Your task to perform on an android device: check storage Image 0: 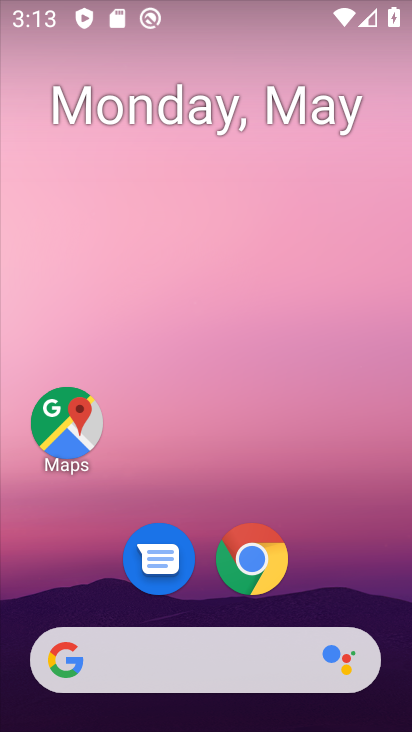
Step 0: click (223, 82)
Your task to perform on an android device: check storage Image 1: 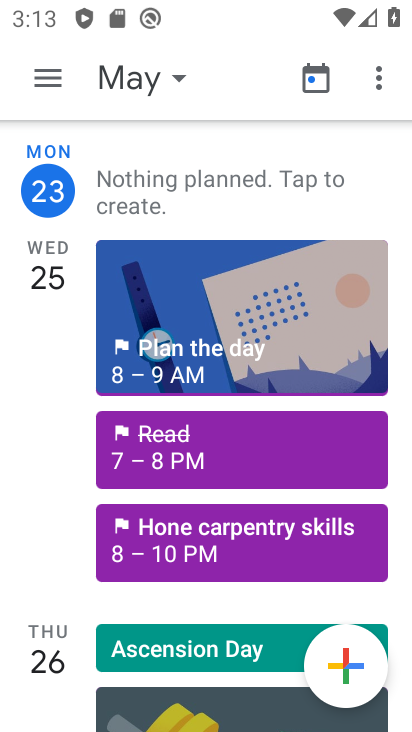
Step 1: press back button
Your task to perform on an android device: check storage Image 2: 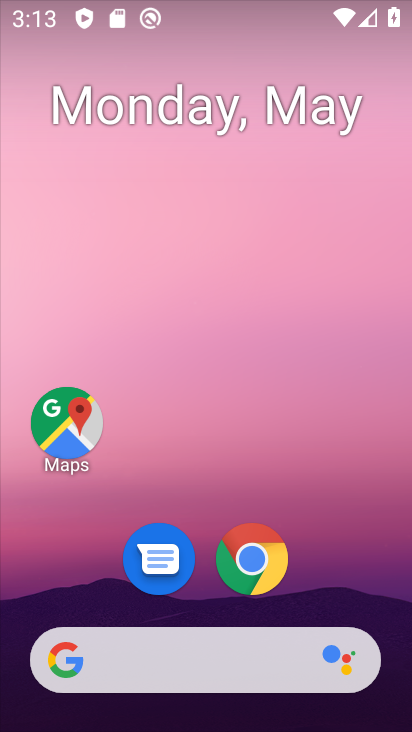
Step 2: drag from (311, 540) to (215, 130)
Your task to perform on an android device: check storage Image 3: 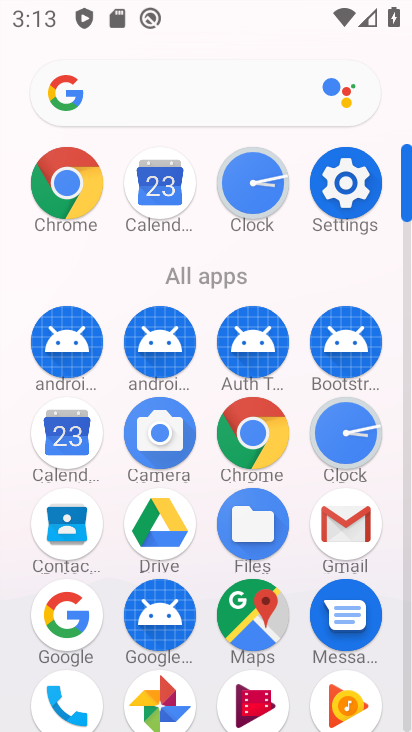
Step 3: click (340, 190)
Your task to perform on an android device: check storage Image 4: 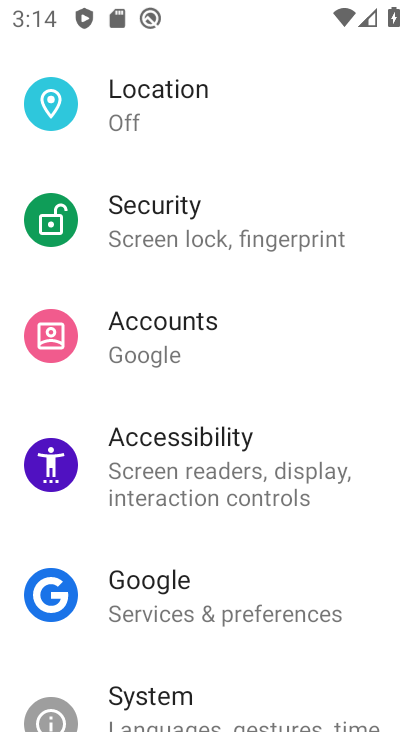
Step 4: drag from (215, 570) to (158, 221)
Your task to perform on an android device: check storage Image 5: 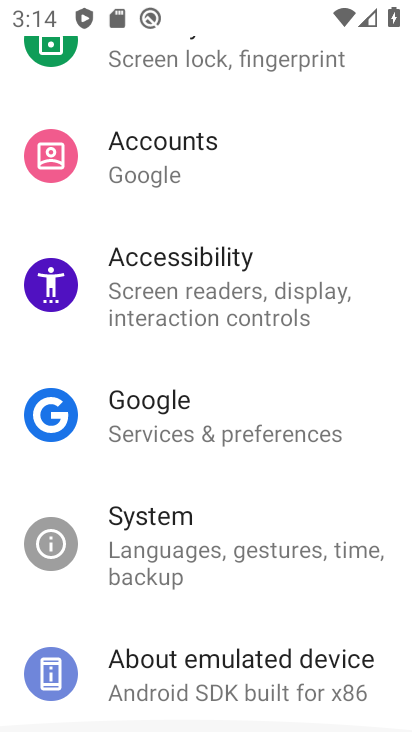
Step 5: drag from (199, 444) to (173, 250)
Your task to perform on an android device: check storage Image 6: 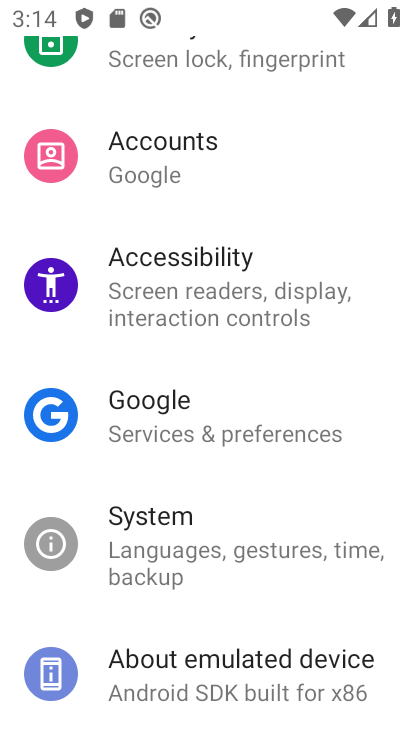
Step 6: drag from (218, 536) to (197, 234)
Your task to perform on an android device: check storage Image 7: 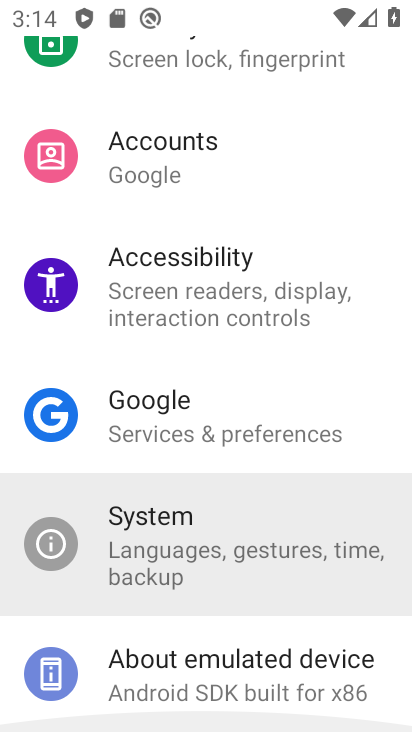
Step 7: drag from (231, 498) to (179, 137)
Your task to perform on an android device: check storage Image 8: 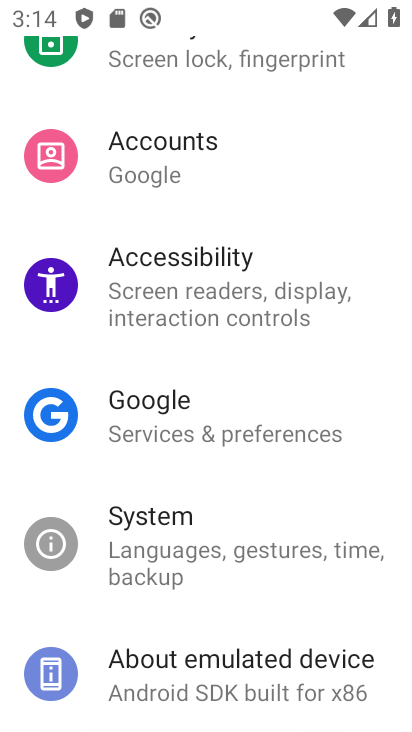
Step 8: drag from (186, 197) to (186, 473)
Your task to perform on an android device: check storage Image 9: 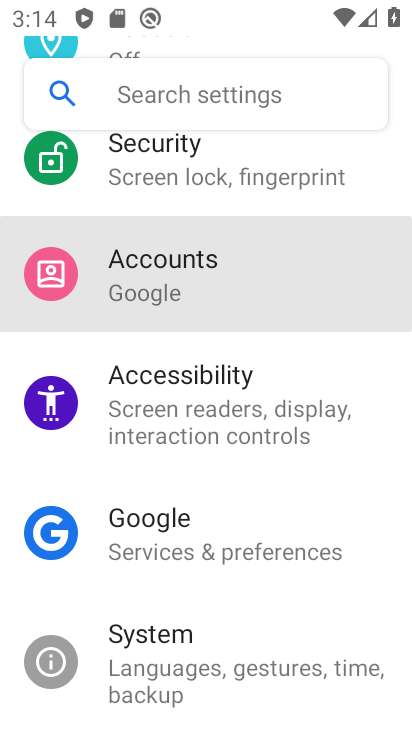
Step 9: drag from (127, 214) to (165, 489)
Your task to perform on an android device: check storage Image 10: 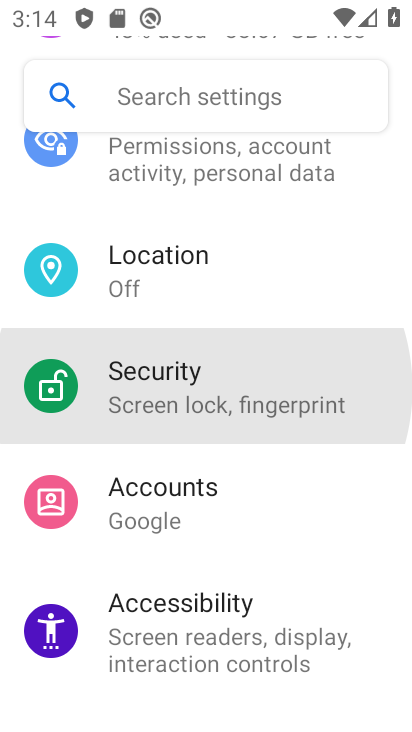
Step 10: drag from (144, 243) to (191, 558)
Your task to perform on an android device: check storage Image 11: 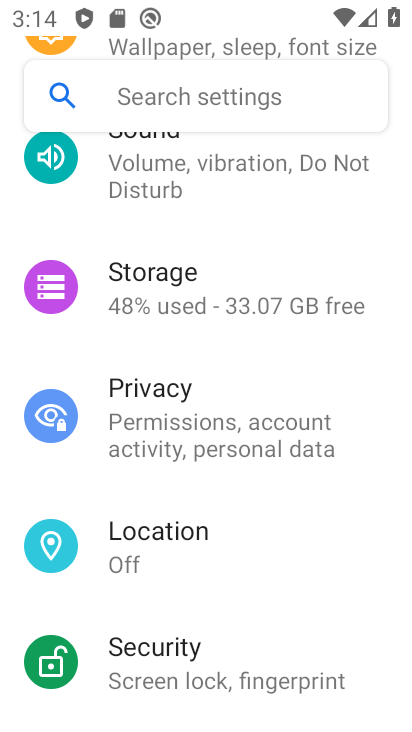
Step 11: drag from (212, 307) to (221, 617)
Your task to perform on an android device: check storage Image 12: 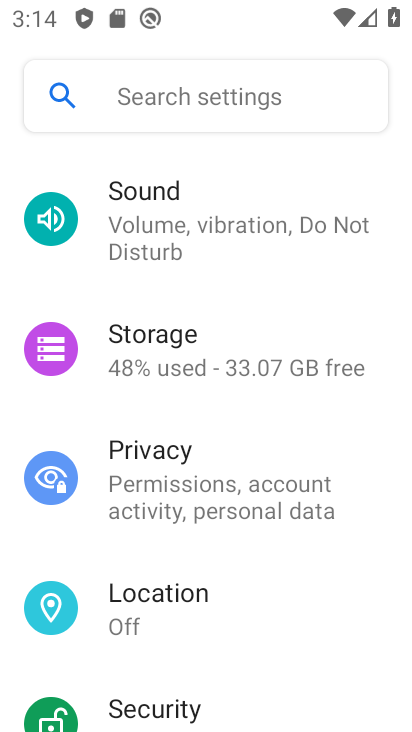
Step 12: drag from (223, 284) to (223, 633)
Your task to perform on an android device: check storage Image 13: 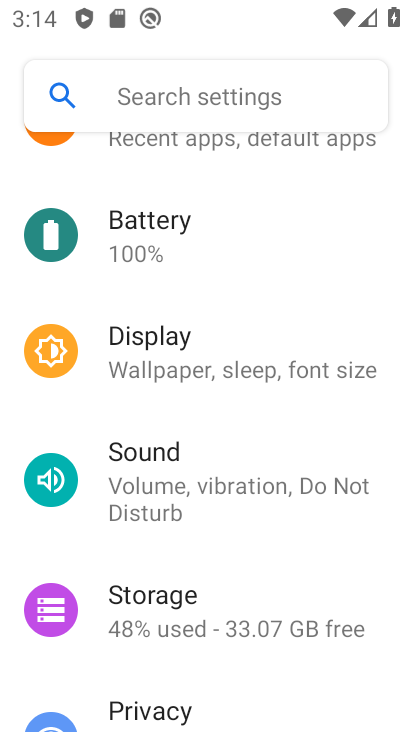
Step 13: drag from (199, 261) to (203, 702)
Your task to perform on an android device: check storage Image 14: 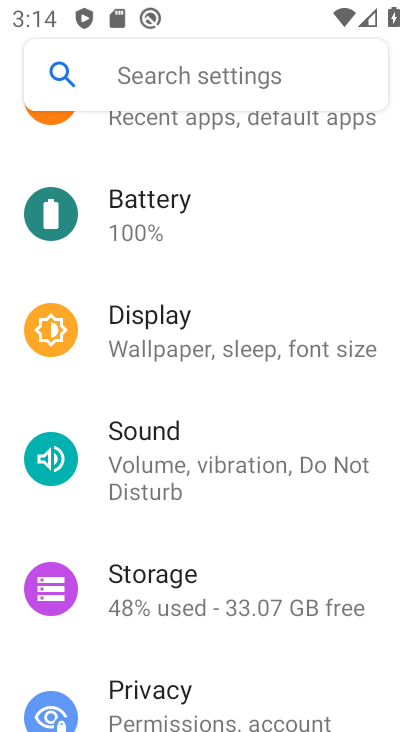
Step 14: click (145, 563)
Your task to perform on an android device: check storage Image 15: 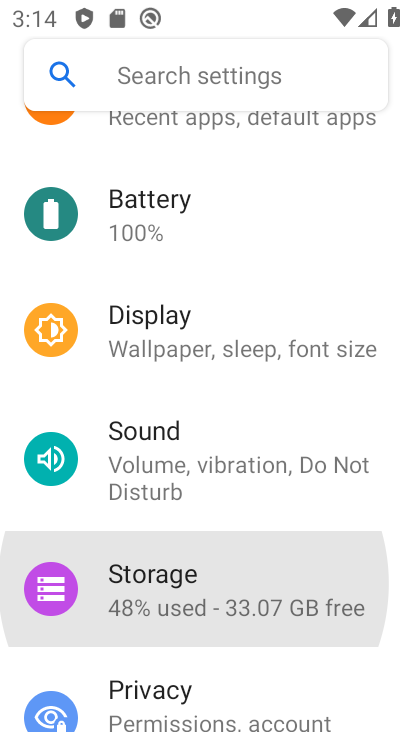
Step 15: click (157, 592)
Your task to perform on an android device: check storage Image 16: 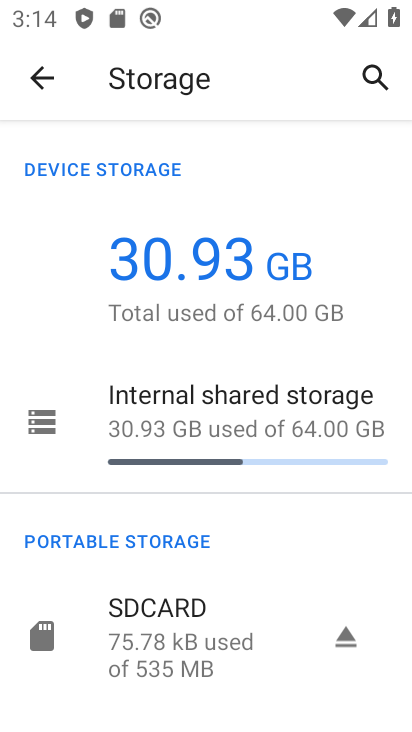
Step 16: task complete